Your task to perform on an android device: turn off priority inbox in the gmail app Image 0: 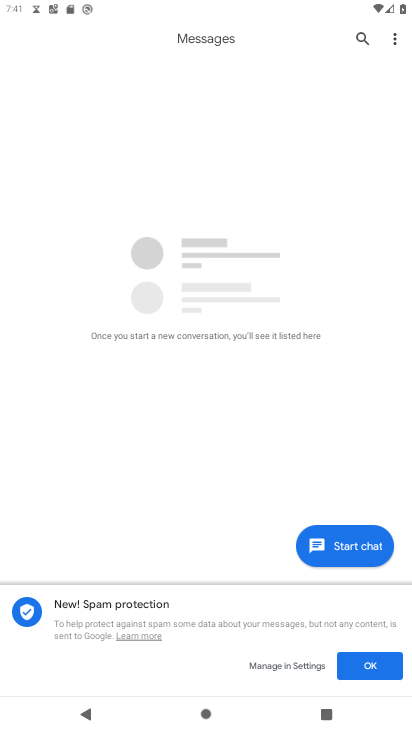
Step 0: press home button
Your task to perform on an android device: turn off priority inbox in the gmail app Image 1: 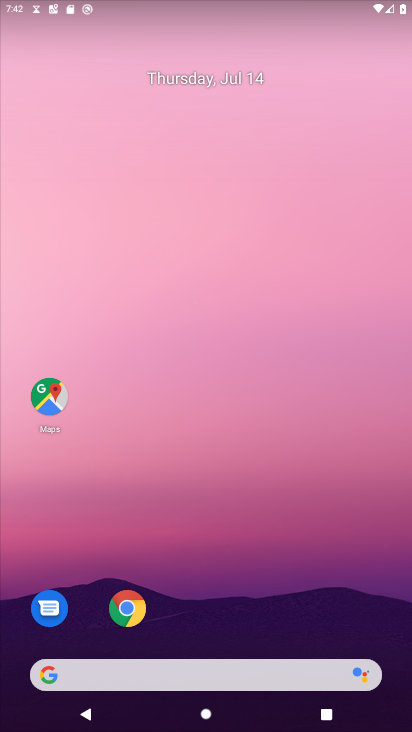
Step 1: drag from (282, 599) to (225, 2)
Your task to perform on an android device: turn off priority inbox in the gmail app Image 2: 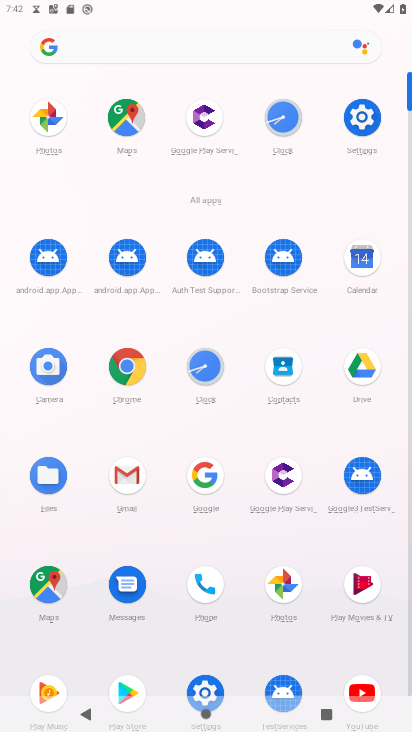
Step 2: click (123, 473)
Your task to perform on an android device: turn off priority inbox in the gmail app Image 3: 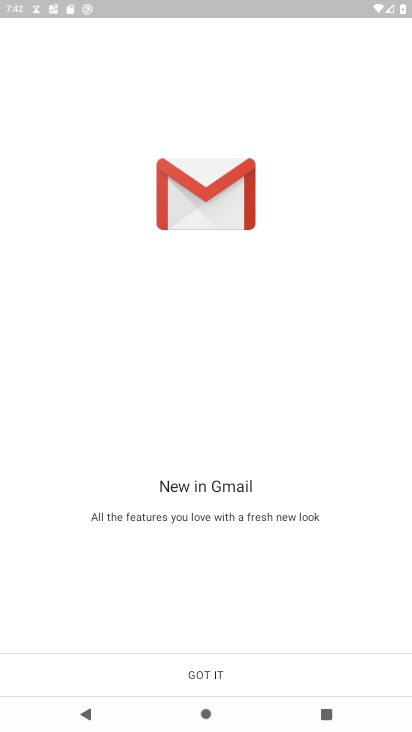
Step 3: click (202, 690)
Your task to perform on an android device: turn off priority inbox in the gmail app Image 4: 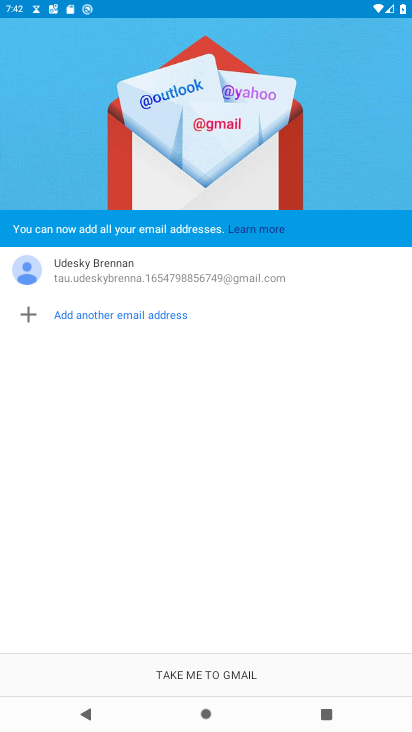
Step 4: click (189, 673)
Your task to perform on an android device: turn off priority inbox in the gmail app Image 5: 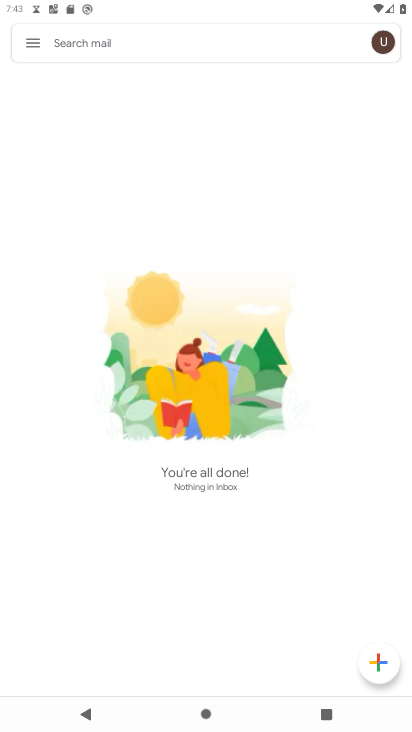
Step 5: click (34, 50)
Your task to perform on an android device: turn off priority inbox in the gmail app Image 6: 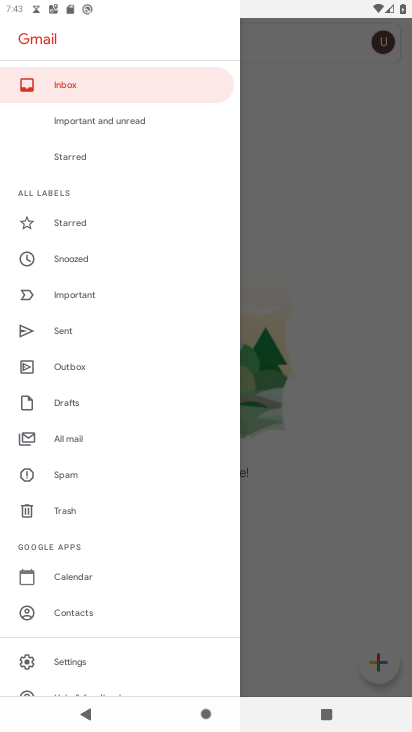
Step 6: click (80, 655)
Your task to perform on an android device: turn off priority inbox in the gmail app Image 7: 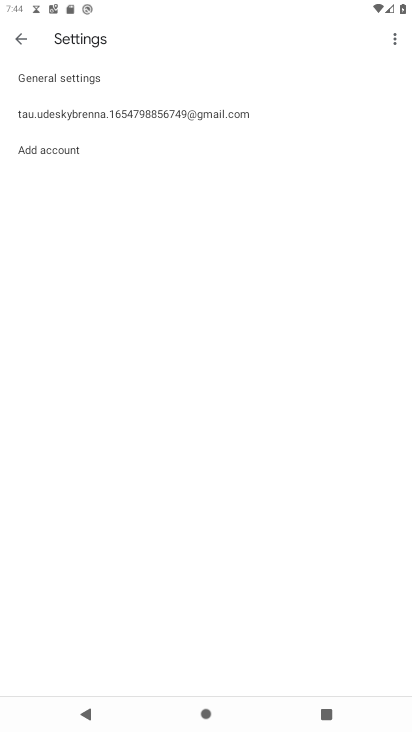
Step 7: click (126, 121)
Your task to perform on an android device: turn off priority inbox in the gmail app Image 8: 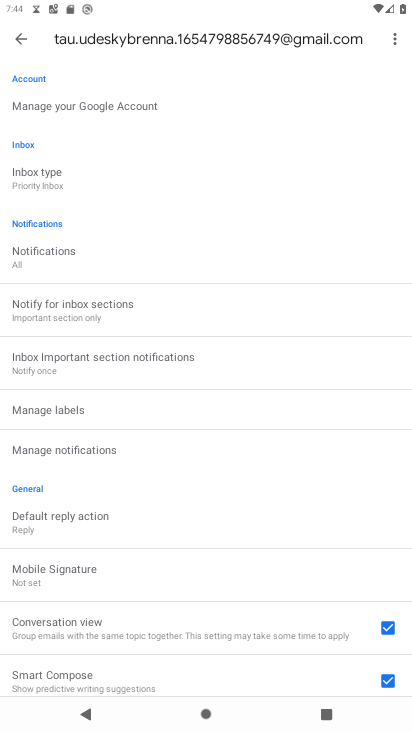
Step 8: click (88, 171)
Your task to perform on an android device: turn off priority inbox in the gmail app Image 9: 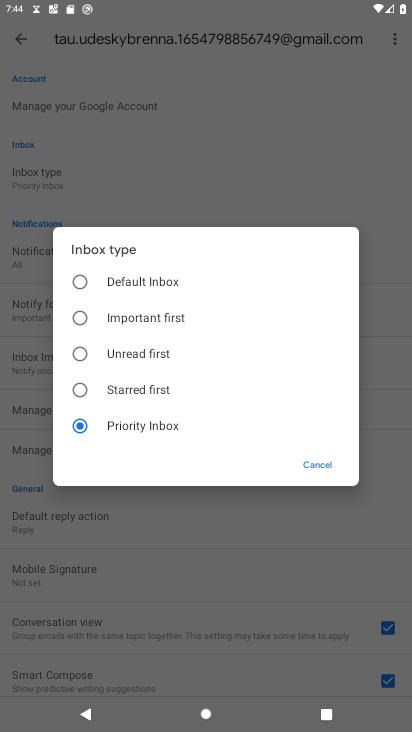
Step 9: click (81, 276)
Your task to perform on an android device: turn off priority inbox in the gmail app Image 10: 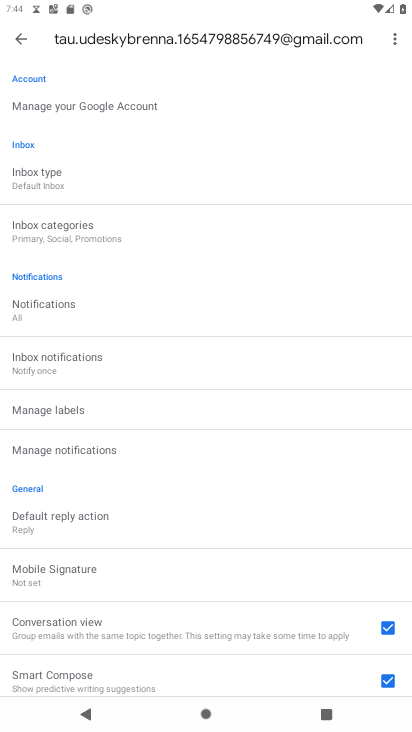
Step 10: task complete